Your task to perform on an android device: toggle notification dots Image 0: 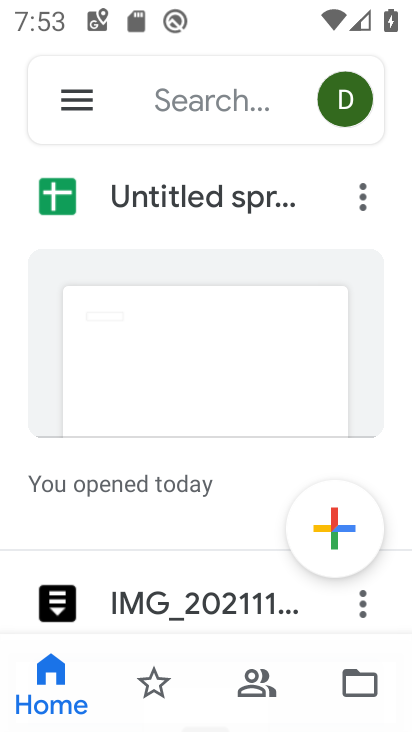
Step 0: press back button
Your task to perform on an android device: toggle notification dots Image 1: 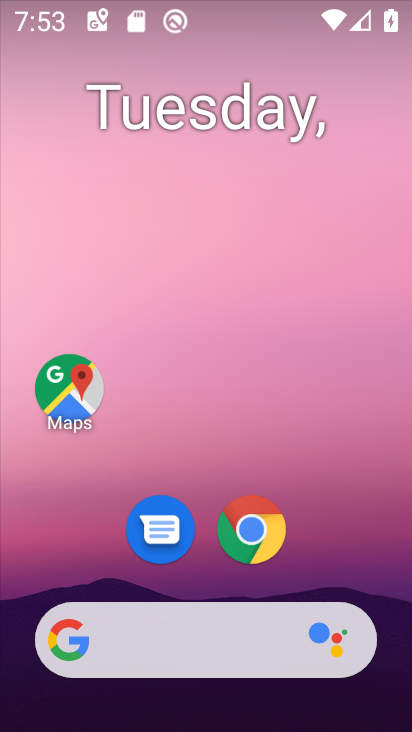
Step 1: drag from (182, 457) to (228, 1)
Your task to perform on an android device: toggle notification dots Image 2: 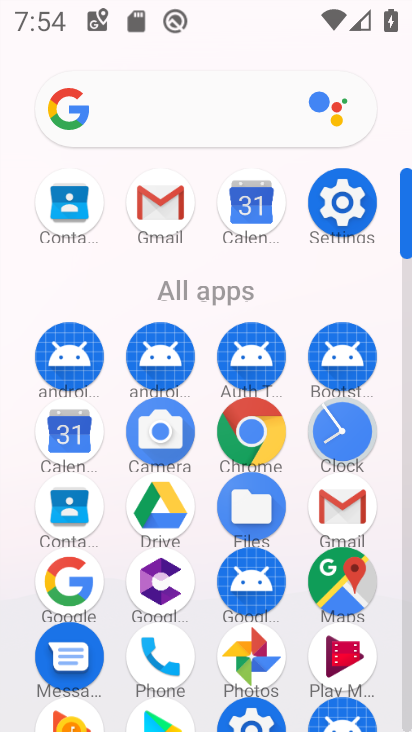
Step 2: click (348, 209)
Your task to perform on an android device: toggle notification dots Image 3: 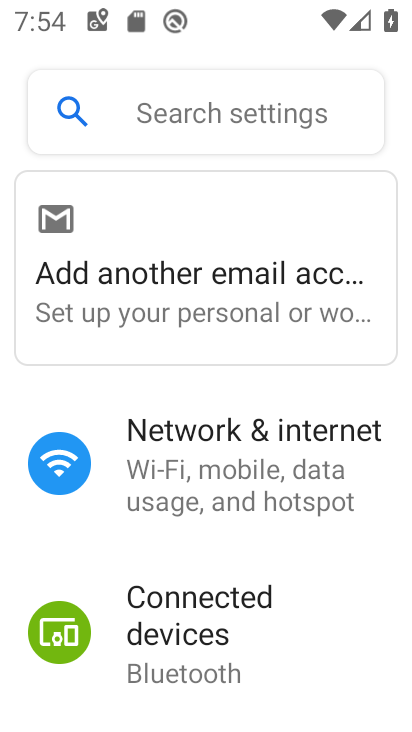
Step 3: drag from (214, 671) to (289, 220)
Your task to perform on an android device: toggle notification dots Image 4: 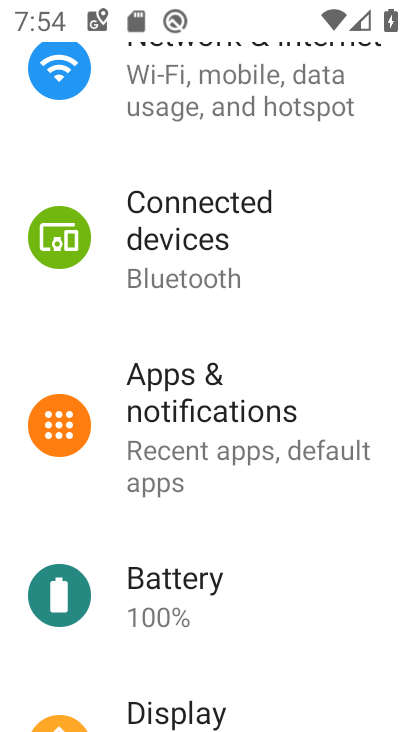
Step 4: click (227, 417)
Your task to perform on an android device: toggle notification dots Image 5: 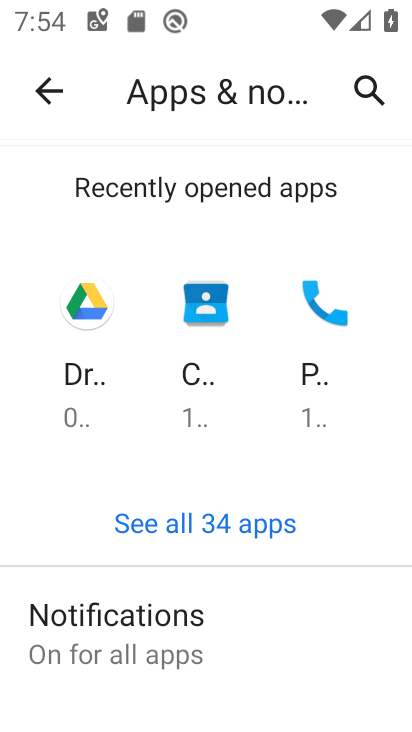
Step 5: drag from (198, 648) to (308, 126)
Your task to perform on an android device: toggle notification dots Image 6: 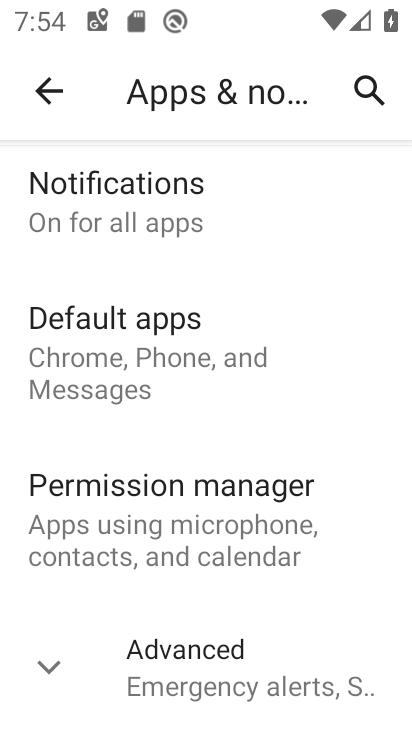
Step 6: click (209, 199)
Your task to perform on an android device: toggle notification dots Image 7: 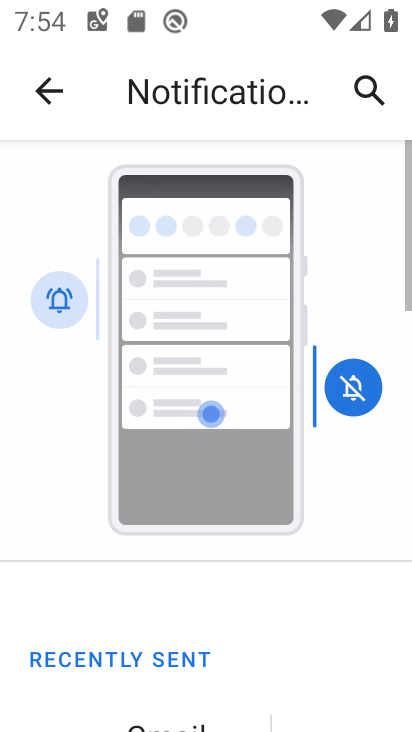
Step 7: drag from (195, 688) to (289, 91)
Your task to perform on an android device: toggle notification dots Image 8: 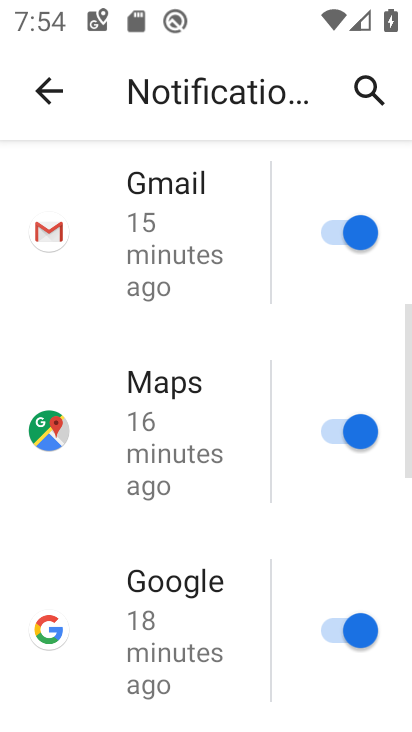
Step 8: drag from (171, 659) to (238, 125)
Your task to perform on an android device: toggle notification dots Image 9: 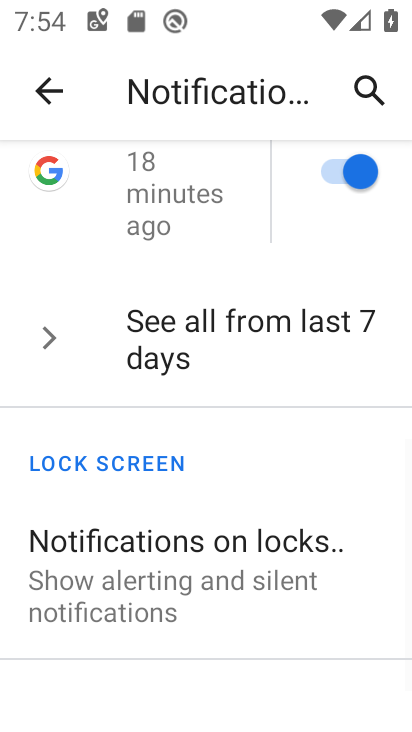
Step 9: drag from (156, 615) to (244, 135)
Your task to perform on an android device: toggle notification dots Image 10: 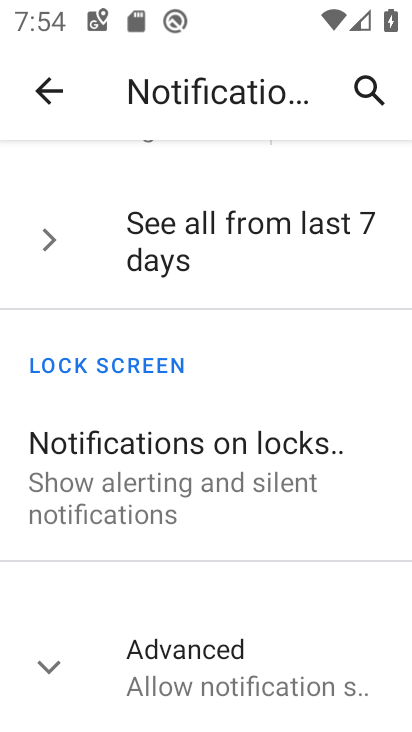
Step 10: click (195, 648)
Your task to perform on an android device: toggle notification dots Image 11: 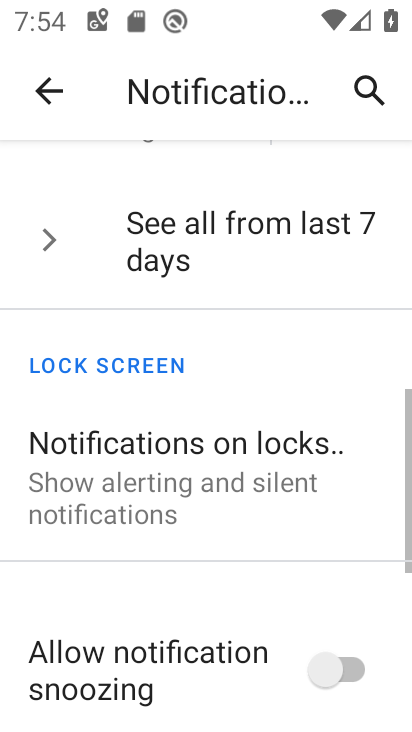
Step 11: drag from (195, 648) to (262, 167)
Your task to perform on an android device: toggle notification dots Image 12: 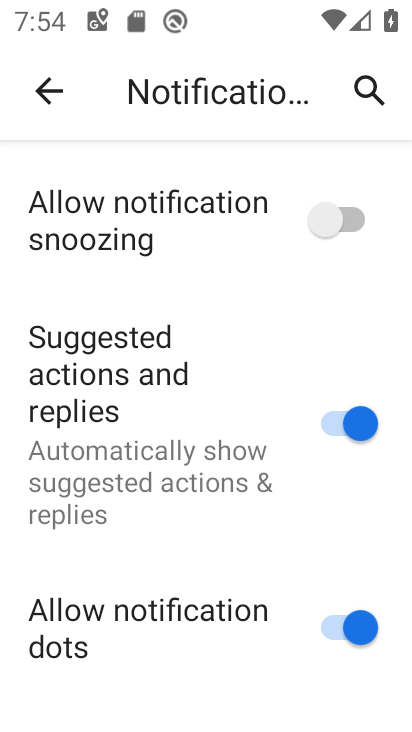
Step 12: click (344, 629)
Your task to perform on an android device: toggle notification dots Image 13: 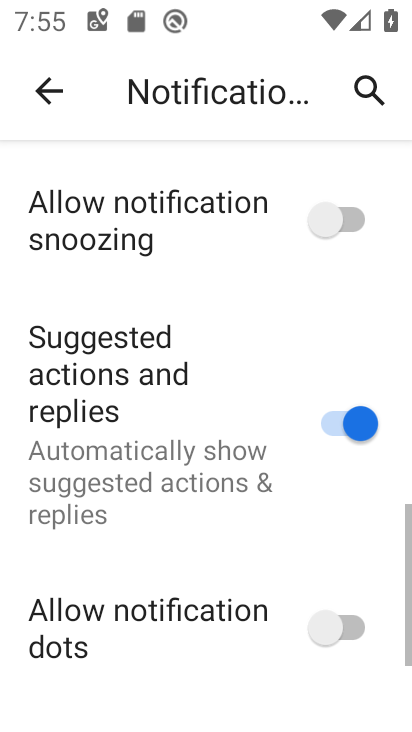
Step 13: task complete